Your task to perform on an android device: What's the weather today? Image 0: 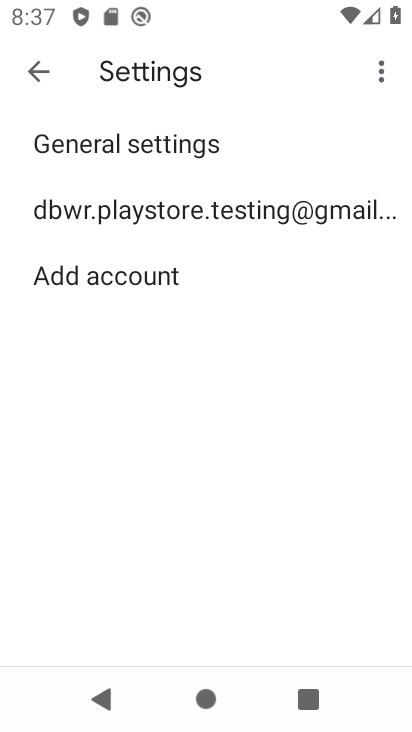
Step 0: press home button
Your task to perform on an android device: What's the weather today? Image 1: 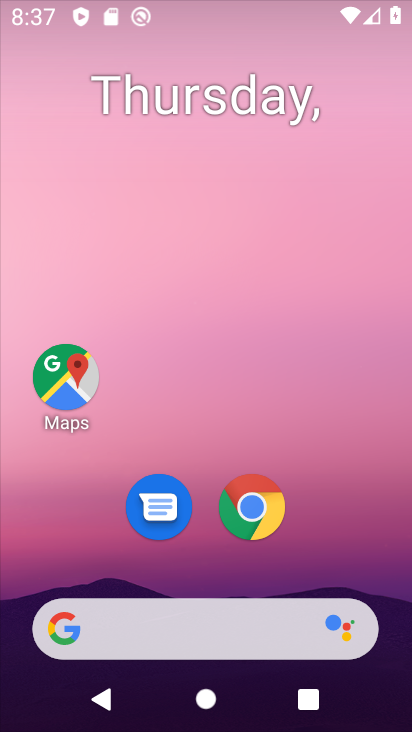
Step 1: click (162, 628)
Your task to perform on an android device: What's the weather today? Image 2: 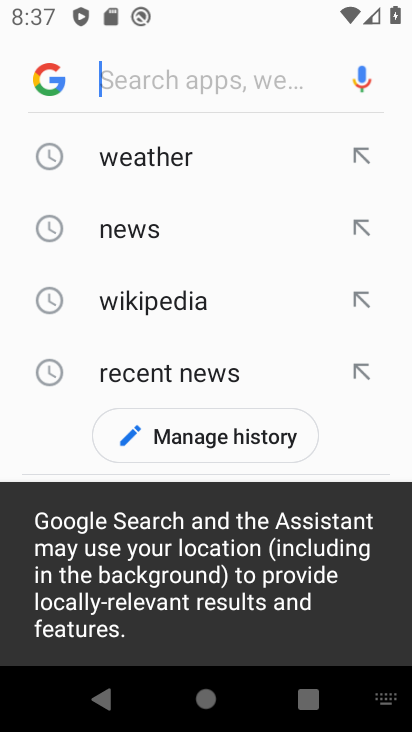
Step 2: click (175, 154)
Your task to perform on an android device: What's the weather today? Image 3: 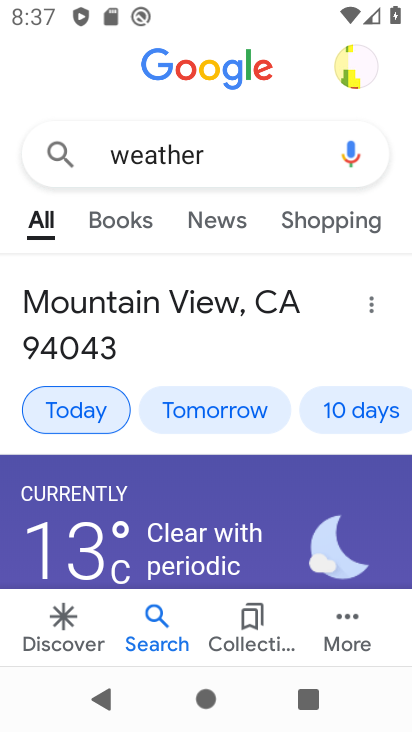
Step 3: task complete